Your task to perform on an android device: find which apps use the phone's location Image 0: 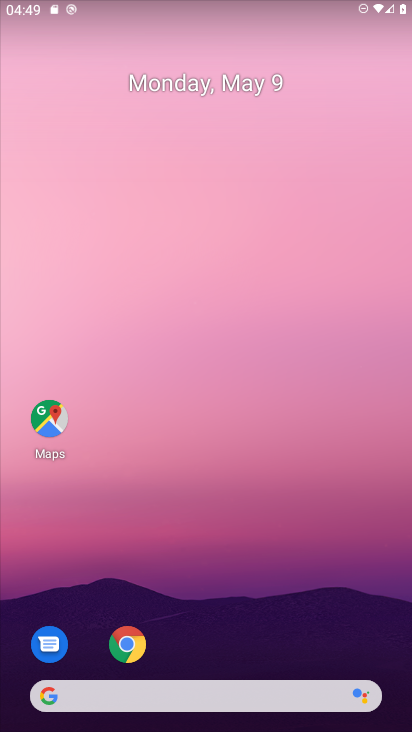
Step 0: drag from (201, 622) to (176, 13)
Your task to perform on an android device: find which apps use the phone's location Image 1: 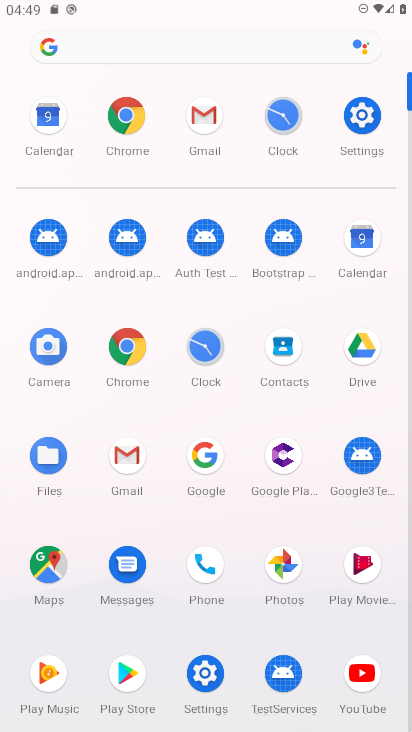
Step 1: click (363, 113)
Your task to perform on an android device: find which apps use the phone's location Image 2: 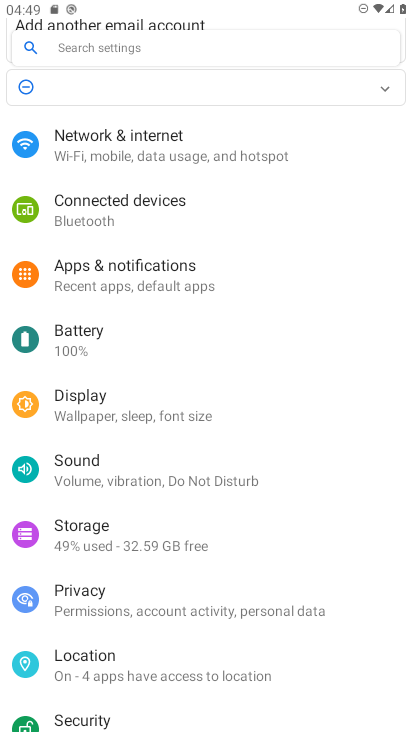
Step 2: click (99, 653)
Your task to perform on an android device: find which apps use the phone's location Image 3: 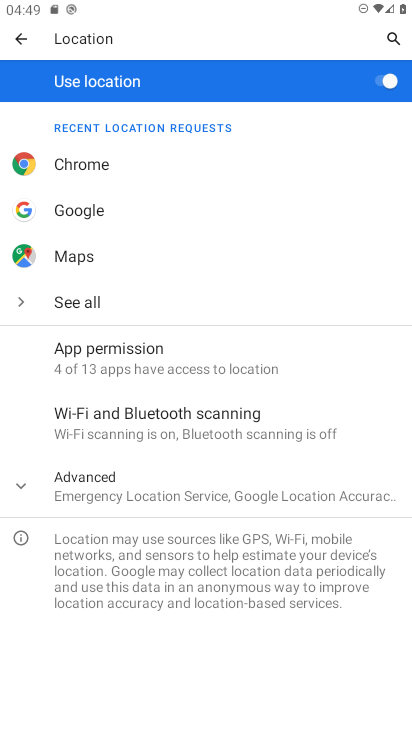
Step 3: click (128, 356)
Your task to perform on an android device: find which apps use the phone's location Image 4: 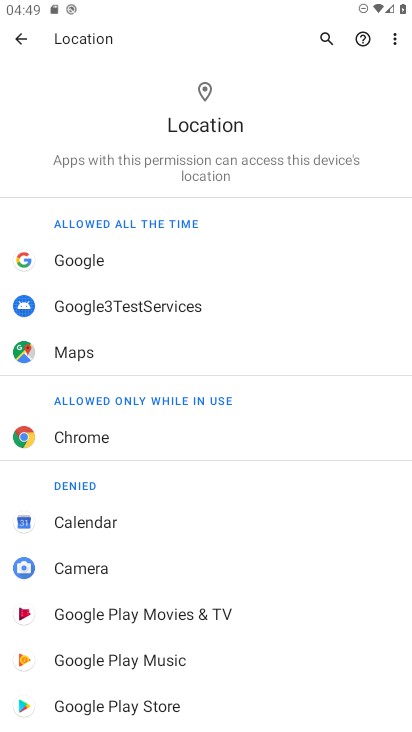
Step 4: click (62, 355)
Your task to perform on an android device: find which apps use the phone's location Image 5: 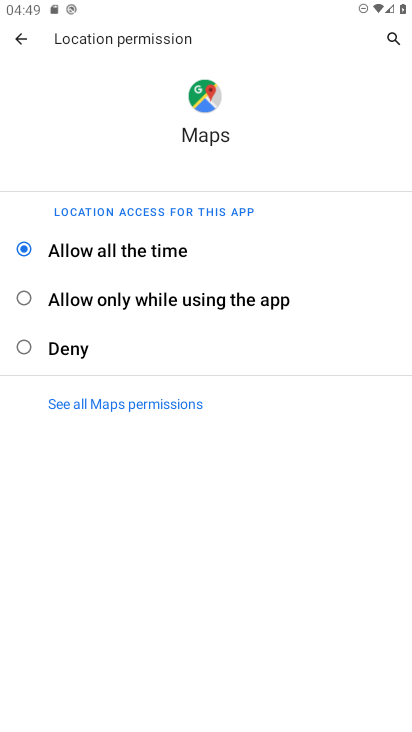
Step 5: task complete